Your task to perform on an android device: change the clock display to digital Image 0: 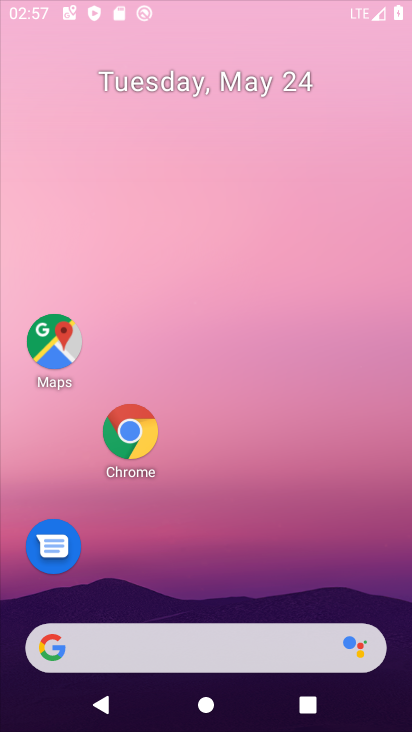
Step 0: click (330, 154)
Your task to perform on an android device: change the clock display to digital Image 1: 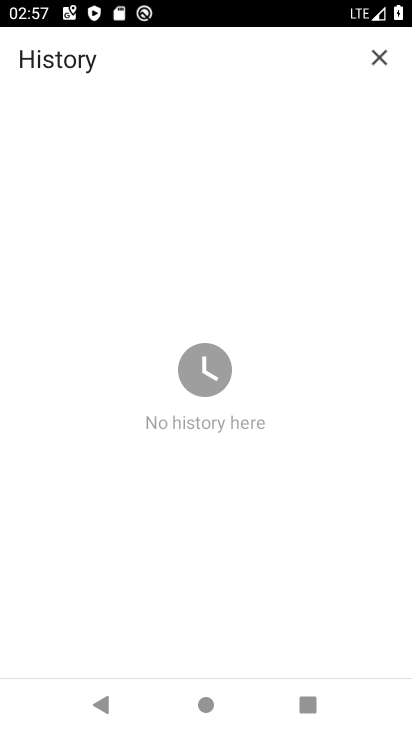
Step 1: press home button
Your task to perform on an android device: change the clock display to digital Image 2: 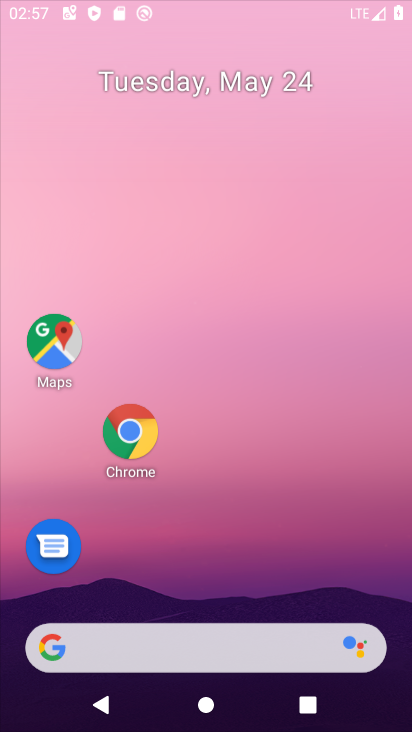
Step 2: drag from (181, 614) to (224, 103)
Your task to perform on an android device: change the clock display to digital Image 3: 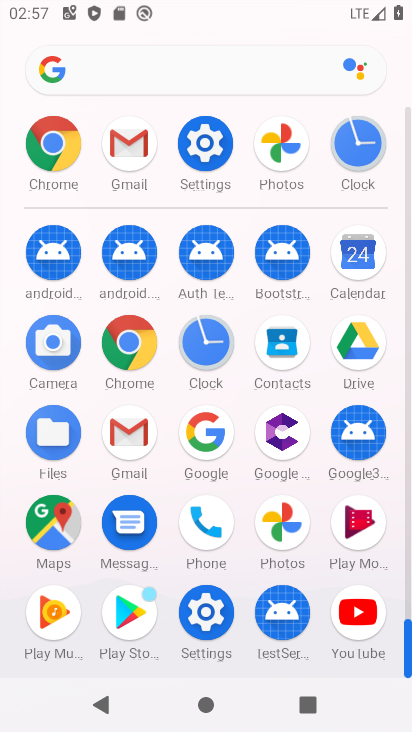
Step 3: click (204, 357)
Your task to perform on an android device: change the clock display to digital Image 4: 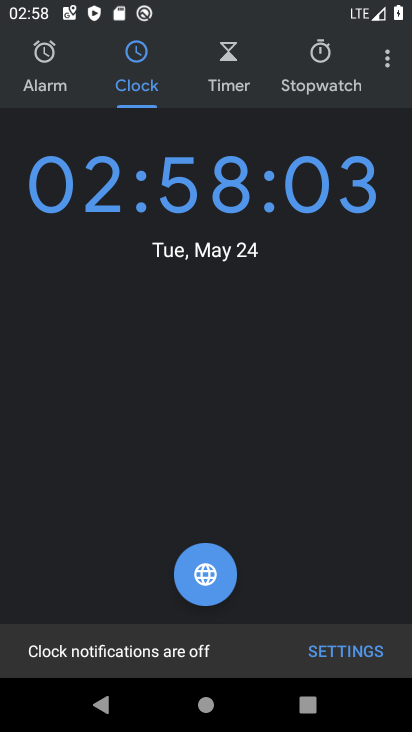
Step 4: click (380, 70)
Your task to perform on an android device: change the clock display to digital Image 5: 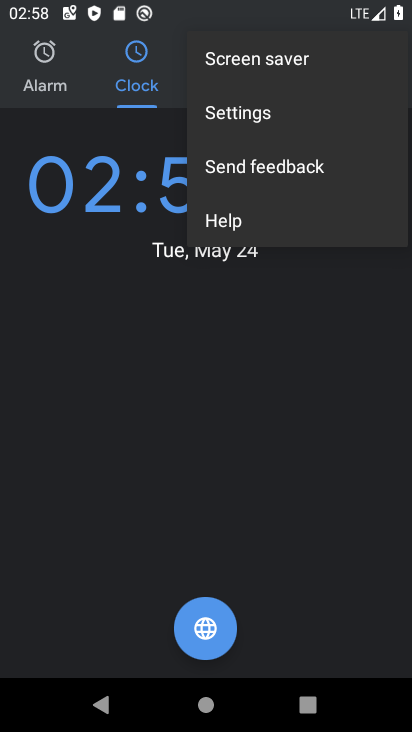
Step 5: click (291, 119)
Your task to perform on an android device: change the clock display to digital Image 6: 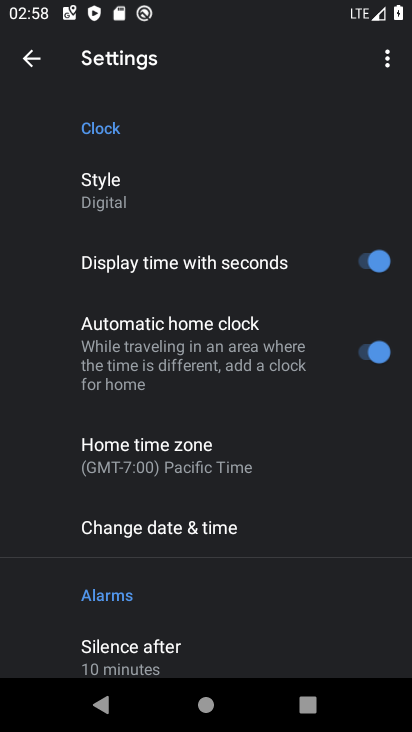
Step 6: task complete